Your task to perform on an android device: Go to accessibility settings Image 0: 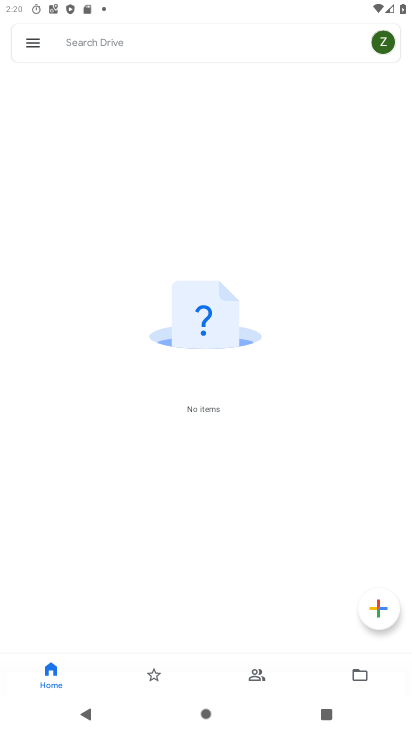
Step 0: press home button
Your task to perform on an android device: Go to accessibility settings Image 1: 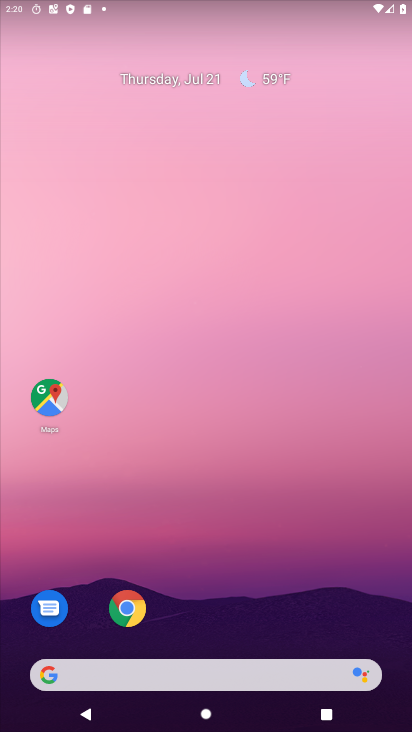
Step 1: drag from (241, 484) to (297, 12)
Your task to perform on an android device: Go to accessibility settings Image 2: 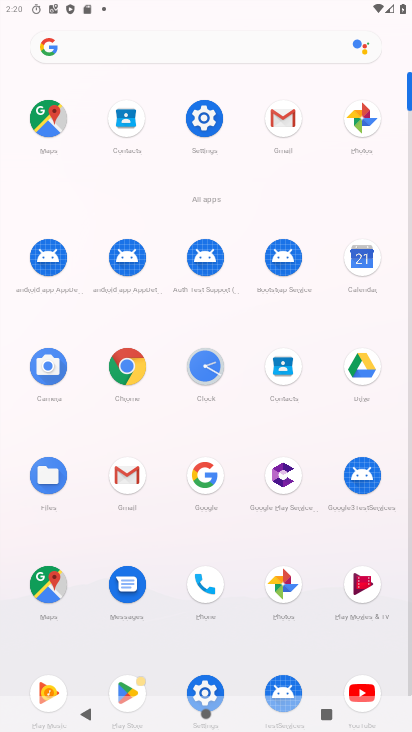
Step 2: click (203, 130)
Your task to perform on an android device: Go to accessibility settings Image 3: 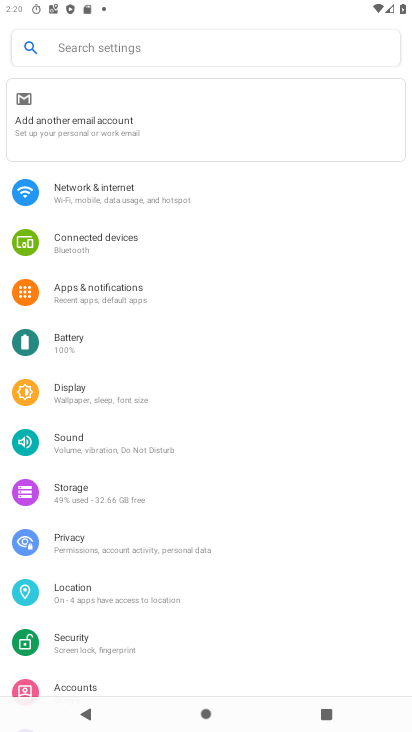
Step 3: drag from (105, 584) to (106, 181)
Your task to perform on an android device: Go to accessibility settings Image 4: 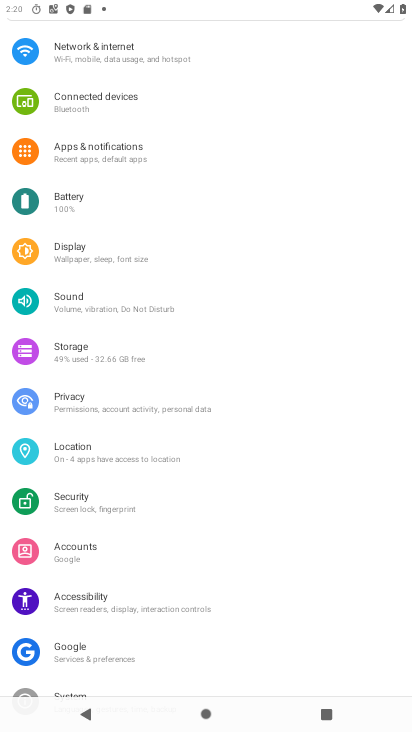
Step 4: click (98, 588)
Your task to perform on an android device: Go to accessibility settings Image 5: 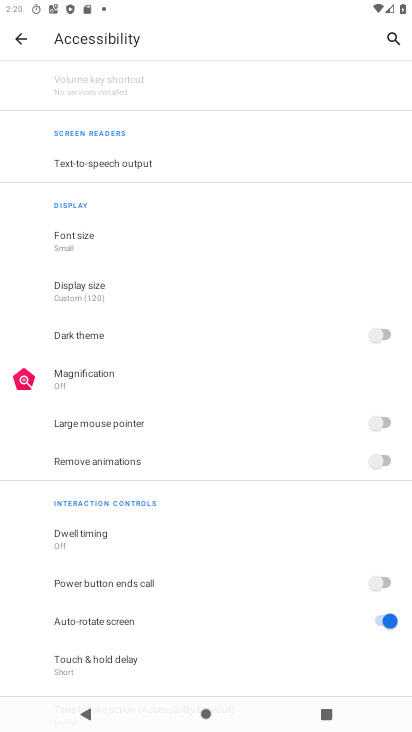
Step 5: task complete